Your task to perform on an android device: toggle sleep mode Image 0: 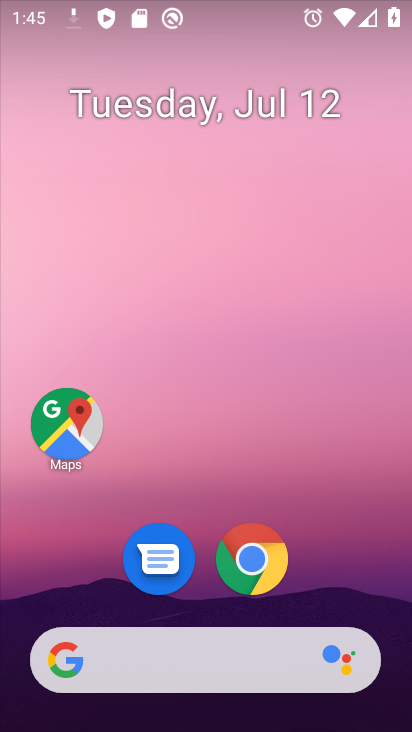
Step 0: drag from (378, 594) to (382, 124)
Your task to perform on an android device: toggle sleep mode Image 1: 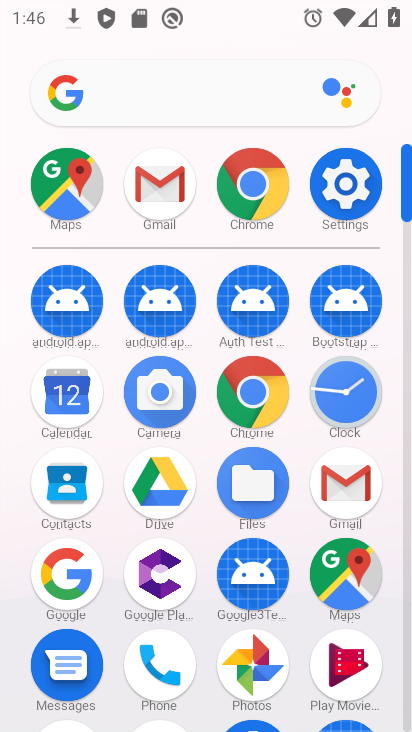
Step 1: click (357, 190)
Your task to perform on an android device: toggle sleep mode Image 2: 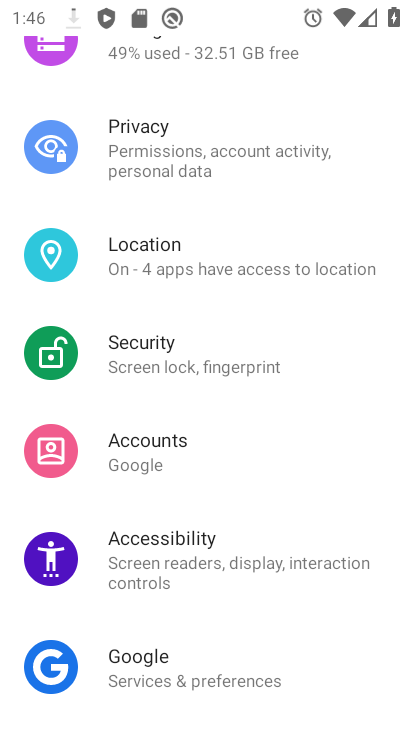
Step 2: drag from (357, 190) to (353, 261)
Your task to perform on an android device: toggle sleep mode Image 3: 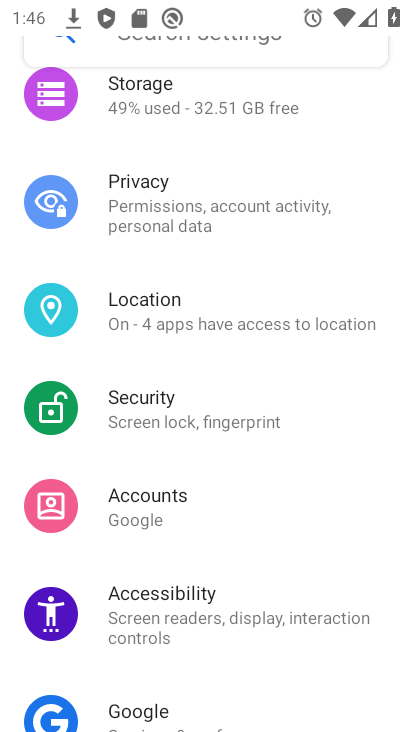
Step 3: drag from (365, 172) to (373, 252)
Your task to perform on an android device: toggle sleep mode Image 4: 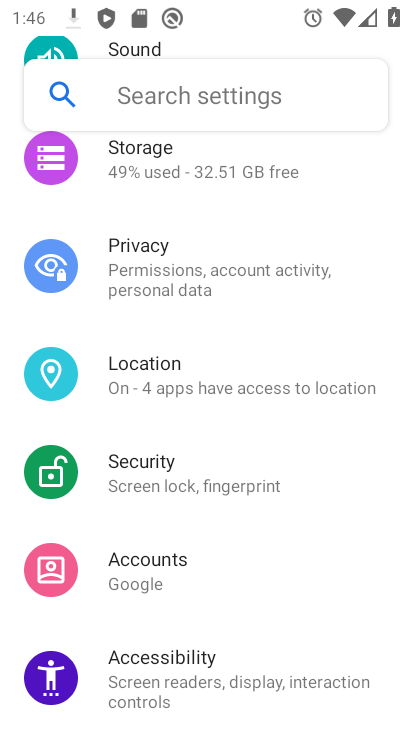
Step 4: drag from (374, 179) to (379, 293)
Your task to perform on an android device: toggle sleep mode Image 5: 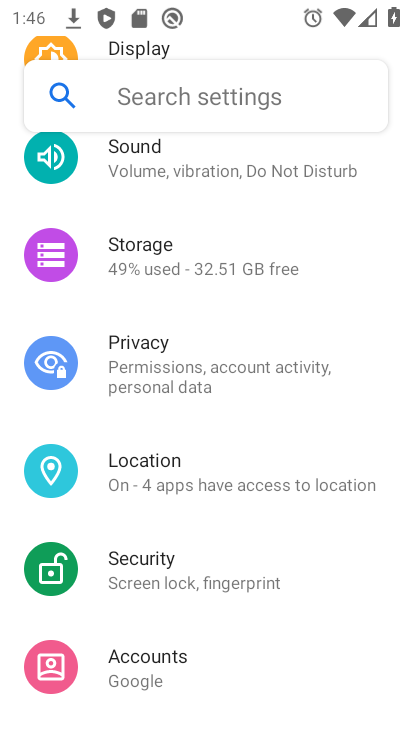
Step 5: drag from (369, 193) to (375, 309)
Your task to perform on an android device: toggle sleep mode Image 6: 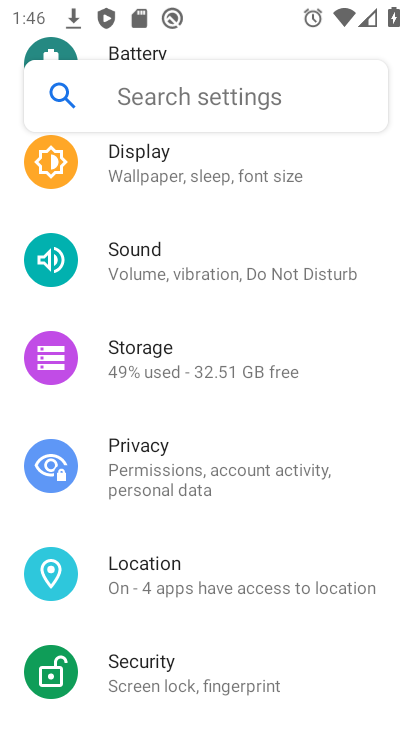
Step 6: drag from (372, 212) to (376, 292)
Your task to perform on an android device: toggle sleep mode Image 7: 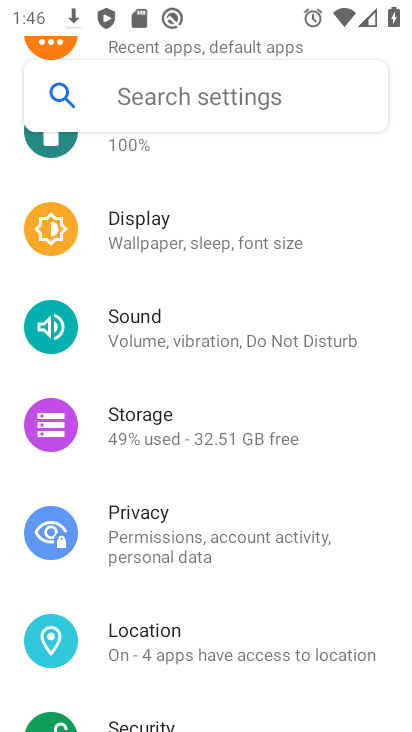
Step 7: drag from (367, 224) to (375, 318)
Your task to perform on an android device: toggle sleep mode Image 8: 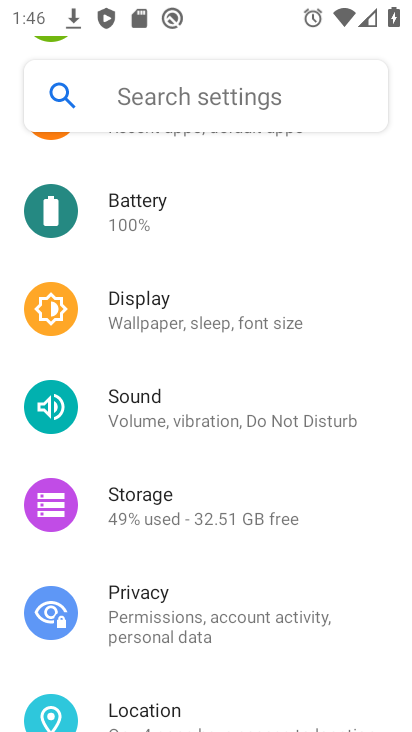
Step 8: drag from (356, 218) to (351, 315)
Your task to perform on an android device: toggle sleep mode Image 9: 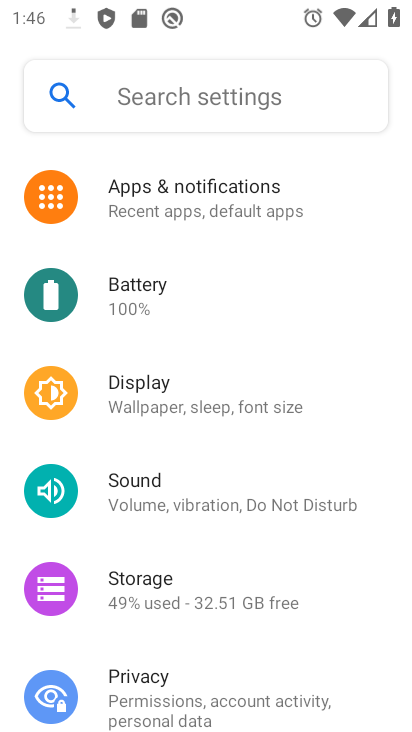
Step 9: click (277, 399)
Your task to perform on an android device: toggle sleep mode Image 10: 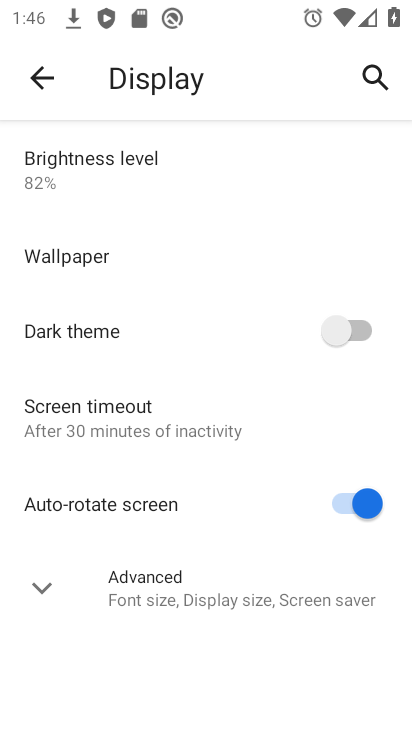
Step 10: click (188, 579)
Your task to perform on an android device: toggle sleep mode Image 11: 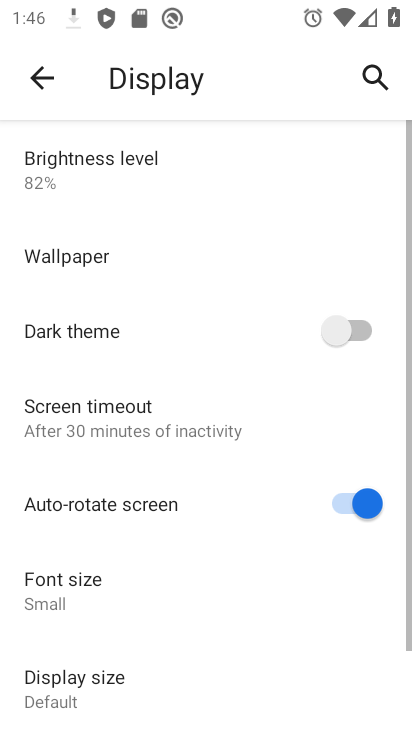
Step 11: task complete